Your task to perform on an android device: change your default location settings in chrome Image 0: 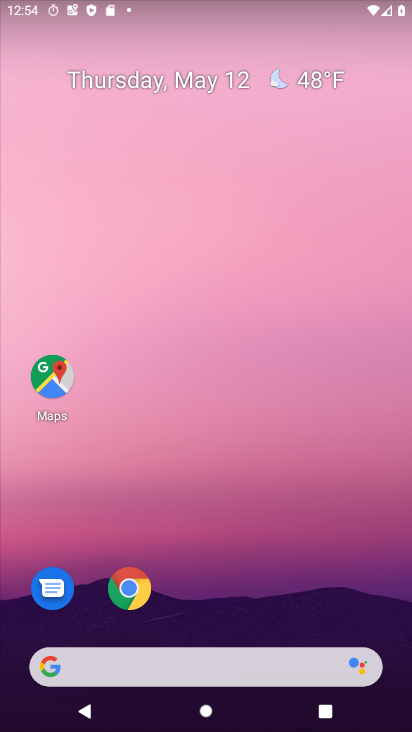
Step 0: drag from (216, 614) to (216, 194)
Your task to perform on an android device: change your default location settings in chrome Image 1: 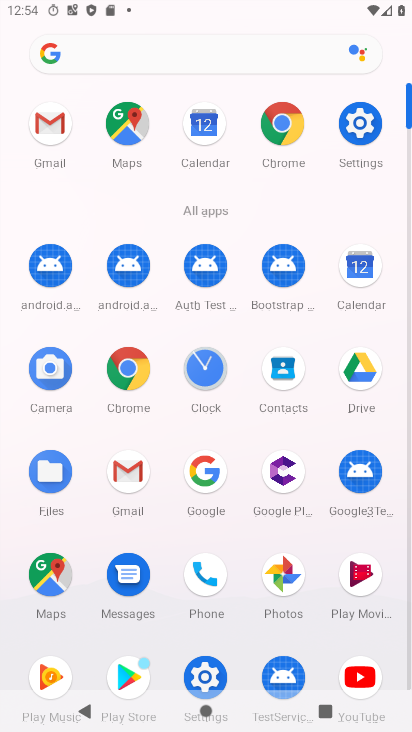
Step 1: click (275, 128)
Your task to perform on an android device: change your default location settings in chrome Image 2: 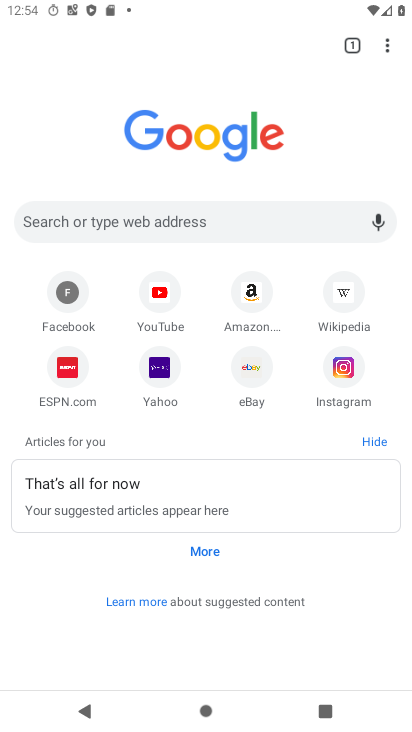
Step 2: click (380, 48)
Your task to perform on an android device: change your default location settings in chrome Image 3: 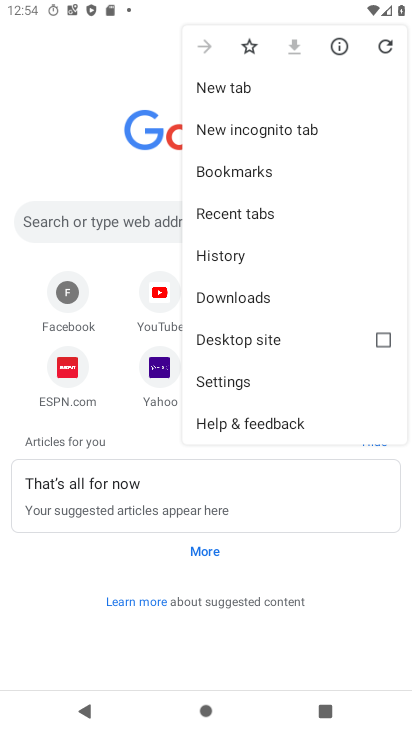
Step 3: click (237, 384)
Your task to perform on an android device: change your default location settings in chrome Image 4: 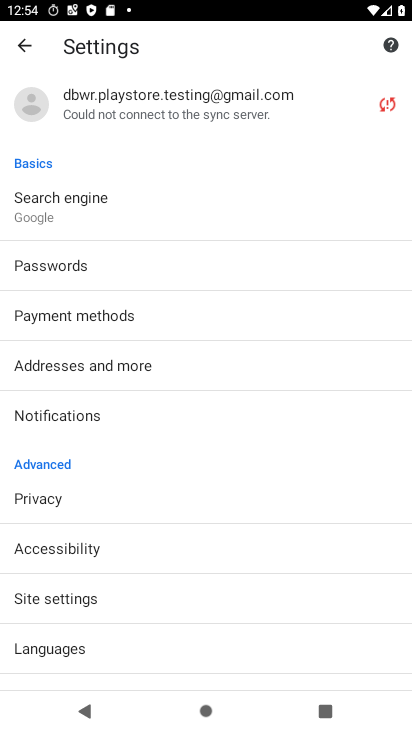
Step 4: drag from (199, 581) to (196, 521)
Your task to perform on an android device: change your default location settings in chrome Image 5: 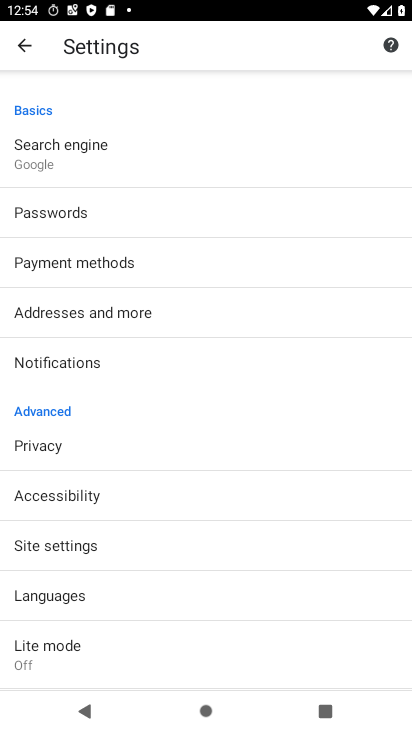
Step 5: click (113, 147)
Your task to perform on an android device: change your default location settings in chrome Image 6: 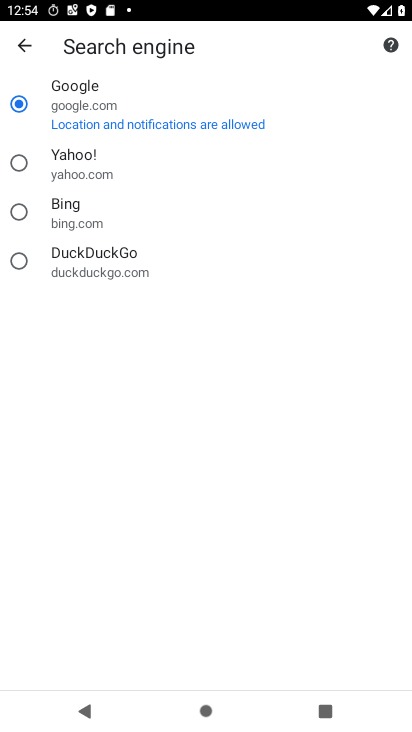
Step 6: click (20, 167)
Your task to perform on an android device: change your default location settings in chrome Image 7: 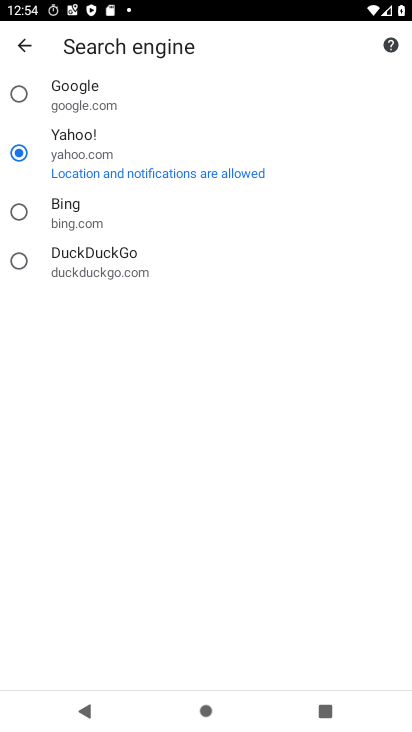
Step 7: task complete